Your task to perform on an android device: change alarm snooze length Image 0: 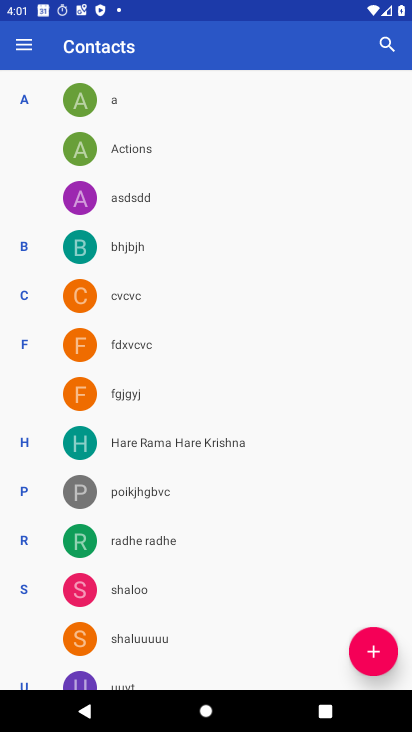
Step 0: press home button
Your task to perform on an android device: change alarm snooze length Image 1: 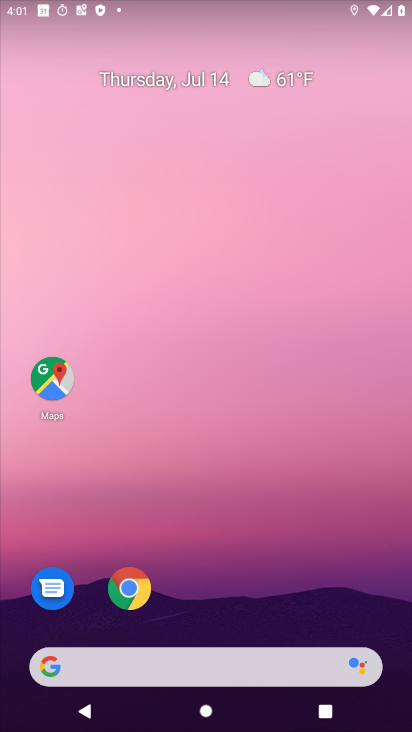
Step 1: drag from (189, 657) to (206, 65)
Your task to perform on an android device: change alarm snooze length Image 2: 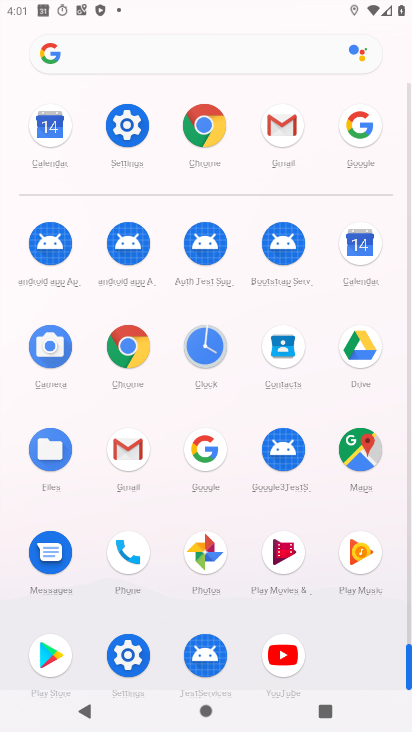
Step 2: click (207, 346)
Your task to perform on an android device: change alarm snooze length Image 3: 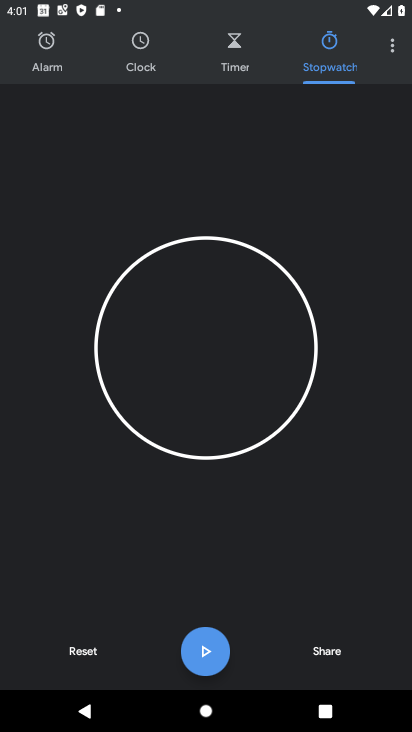
Step 3: click (393, 48)
Your task to perform on an android device: change alarm snooze length Image 4: 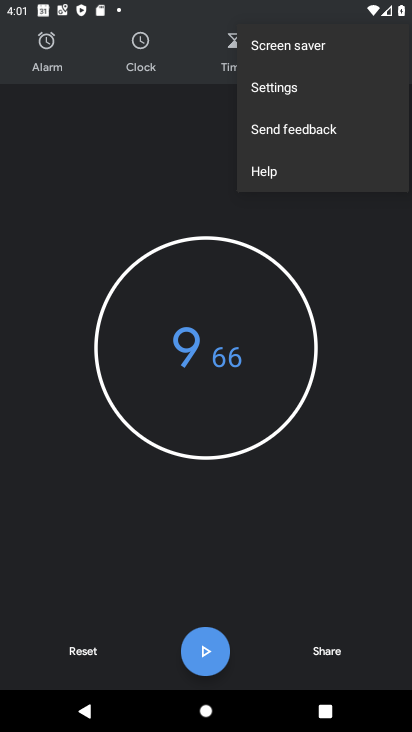
Step 4: click (277, 94)
Your task to perform on an android device: change alarm snooze length Image 5: 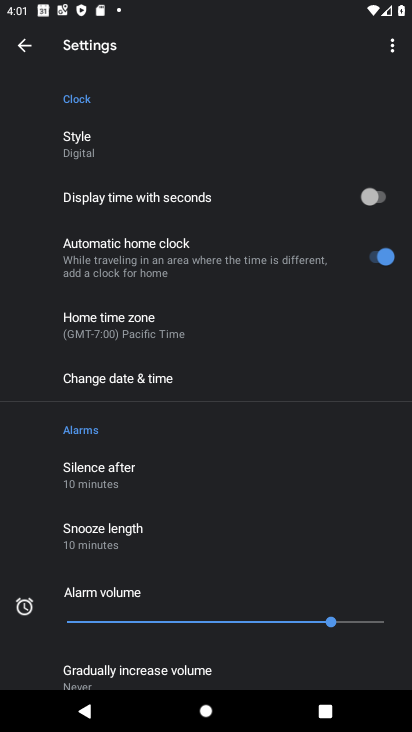
Step 5: click (111, 530)
Your task to perform on an android device: change alarm snooze length Image 6: 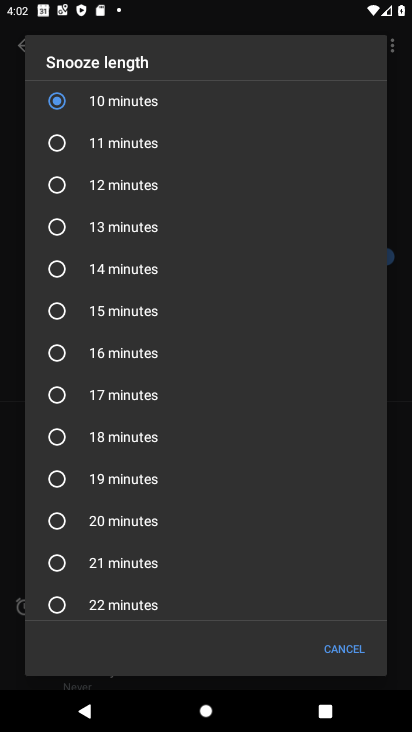
Step 6: click (55, 522)
Your task to perform on an android device: change alarm snooze length Image 7: 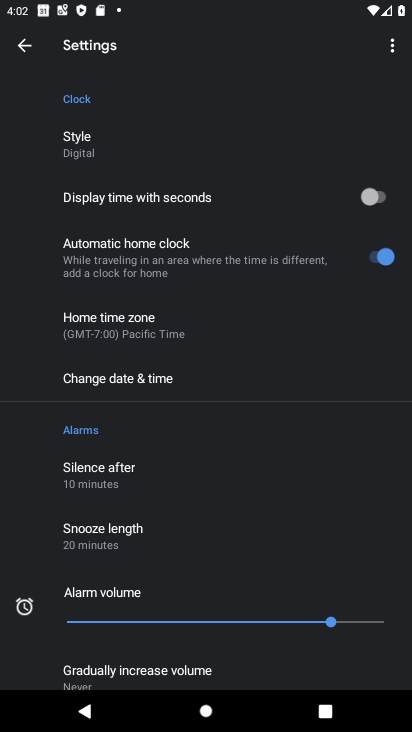
Step 7: click (127, 529)
Your task to perform on an android device: change alarm snooze length Image 8: 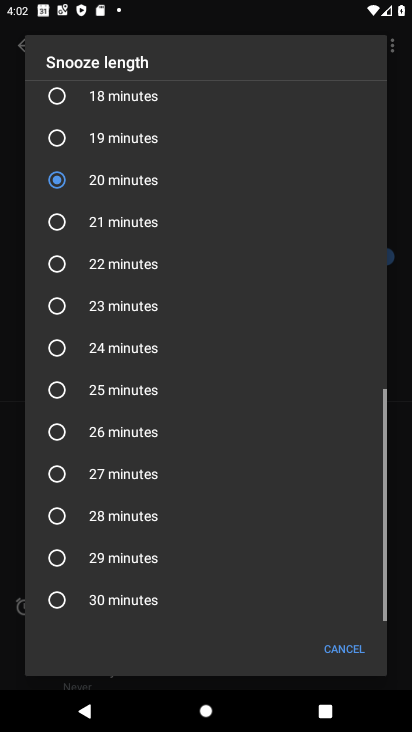
Step 8: click (127, 529)
Your task to perform on an android device: change alarm snooze length Image 9: 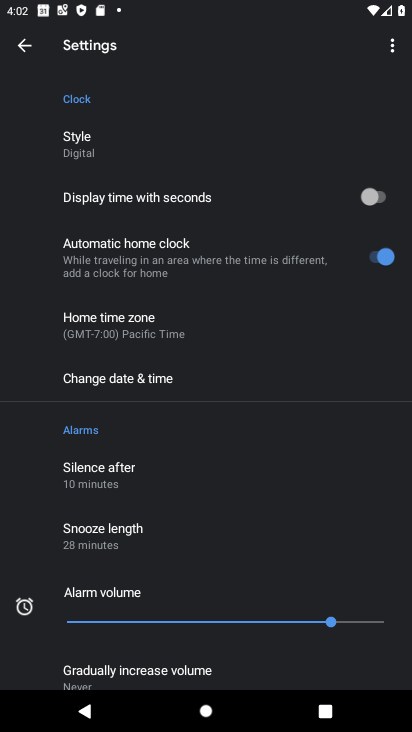
Step 9: task complete